Your task to perform on an android device: Go to Yahoo.com Image 0: 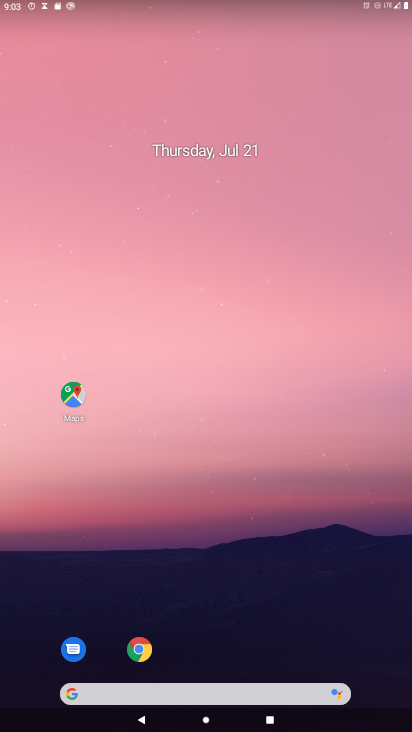
Step 0: drag from (356, 622) to (175, 105)
Your task to perform on an android device: Go to Yahoo.com Image 1: 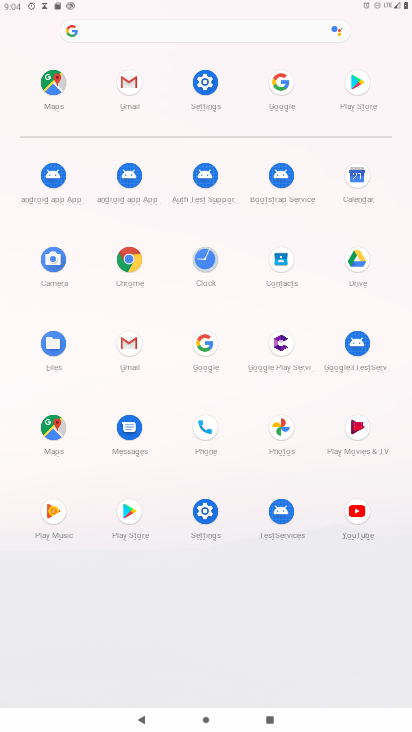
Step 1: click (201, 347)
Your task to perform on an android device: Go to Yahoo.com Image 2: 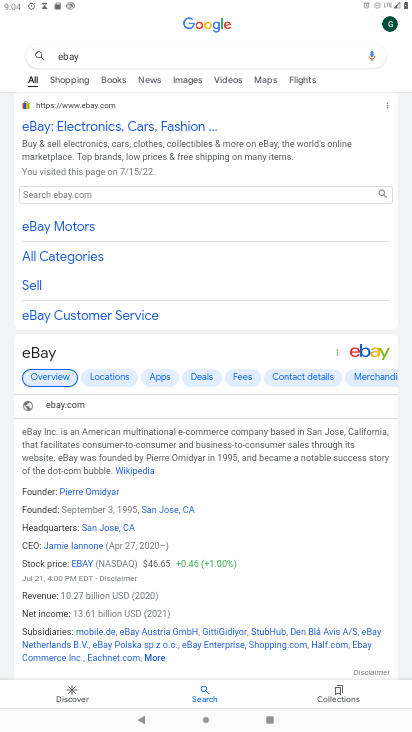
Step 2: press back button
Your task to perform on an android device: Go to Yahoo.com Image 3: 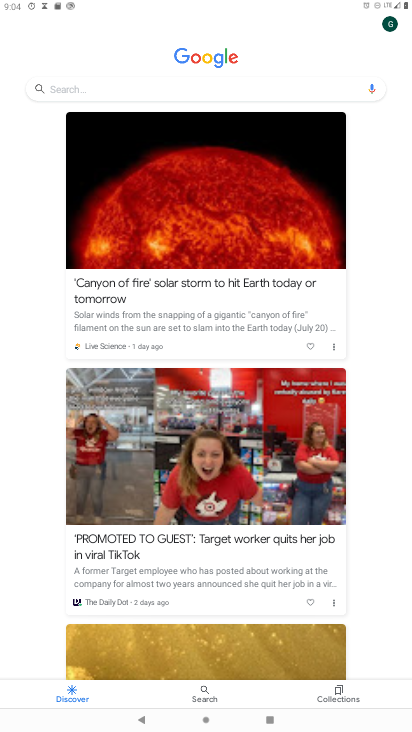
Step 3: click (64, 95)
Your task to perform on an android device: Go to Yahoo.com Image 4: 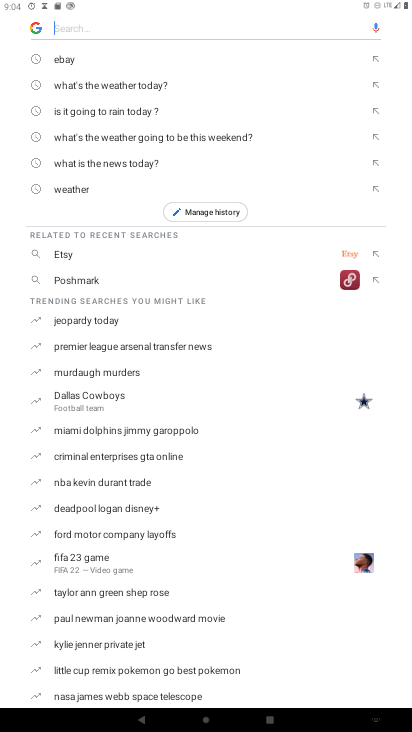
Step 4: type "Yahoo.com"
Your task to perform on an android device: Go to Yahoo.com Image 5: 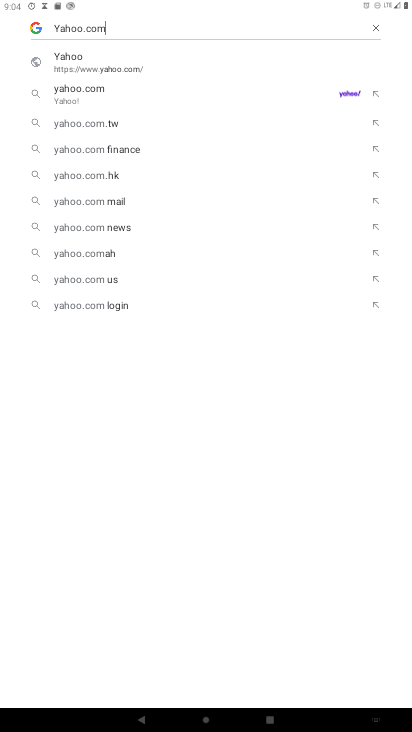
Step 5: click (99, 95)
Your task to perform on an android device: Go to Yahoo.com Image 6: 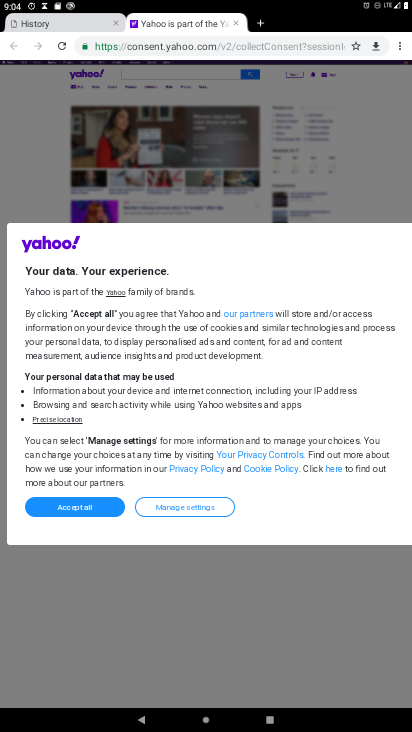
Step 6: task complete